Your task to perform on an android device: turn smart compose on in the gmail app Image 0: 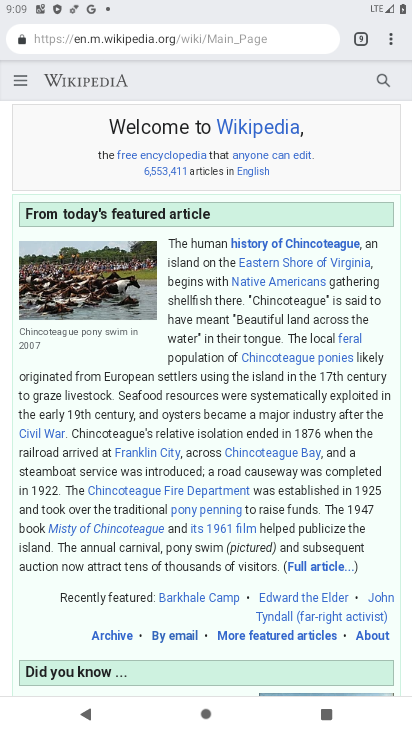
Step 0: press home button
Your task to perform on an android device: turn smart compose on in the gmail app Image 1: 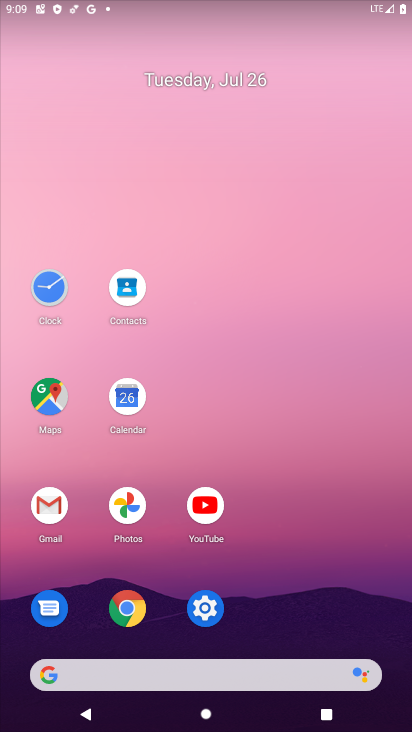
Step 1: click (44, 505)
Your task to perform on an android device: turn smart compose on in the gmail app Image 2: 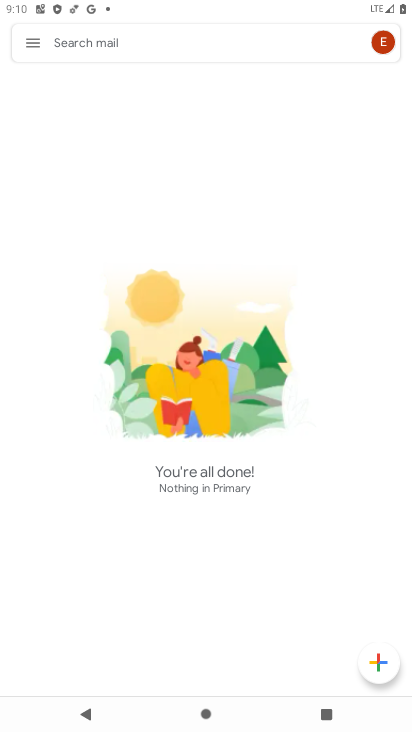
Step 2: click (29, 40)
Your task to perform on an android device: turn smart compose on in the gmail app Image 3: 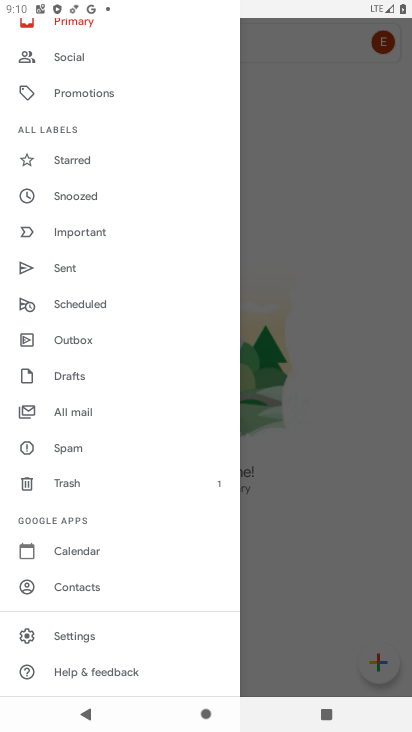
Step 3: click (67, 639)
Your task to perform on an android device: turn smart compose on in the gmail app Image 4: 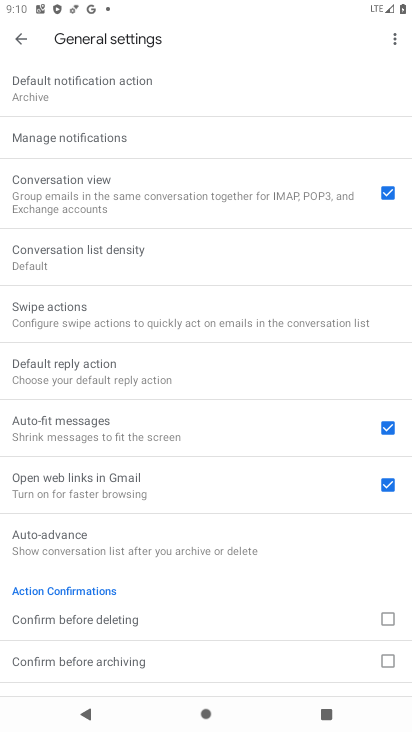
Step 4: click (16, 31)
Your task to perform on an android device: turn smart compose on in the gmail app Image 5: 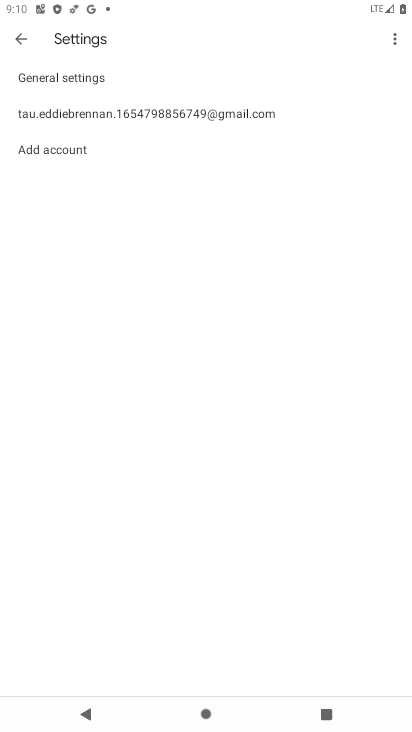
Step 5: click (94, 112)
Your task to perform on an android device: turn smart compose on in the gmail app Image 6: 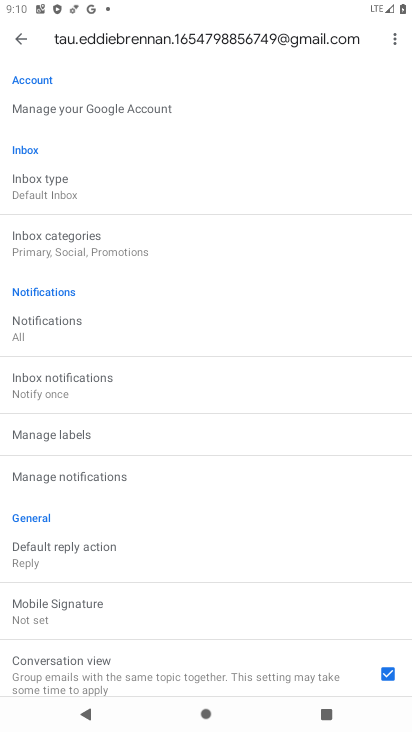
Step 6: task complete